Your task to perform on an android device: turn on translation in the chrome app Image 0: 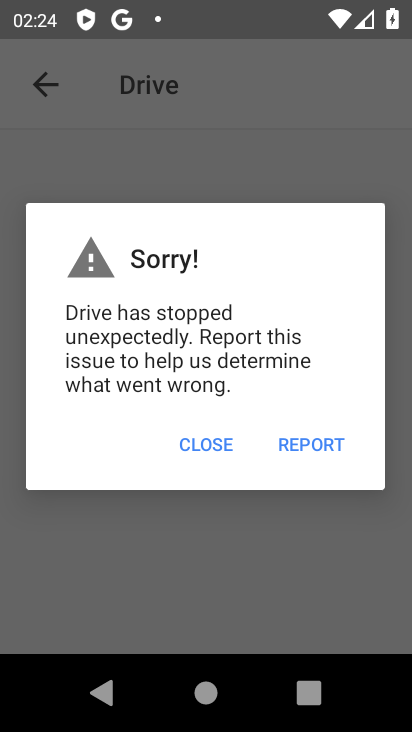
Step 0: press home button
Your task to perform on an android device: turn on translation in the chrome app Image 1: 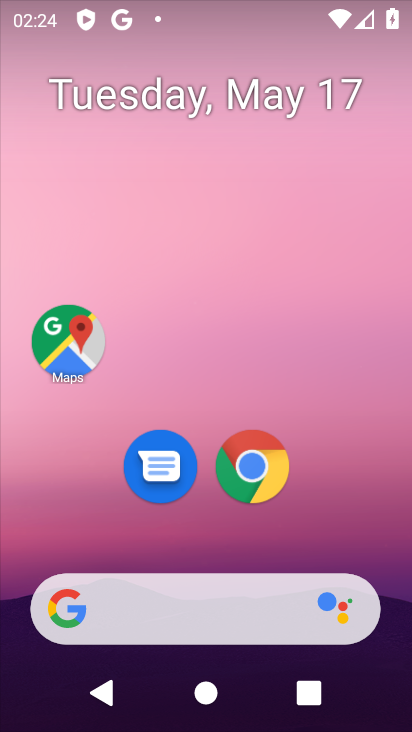
Step 1: click (258, 458)
Your task to perform on an android device: turn on translation in the chrome app Image 2: 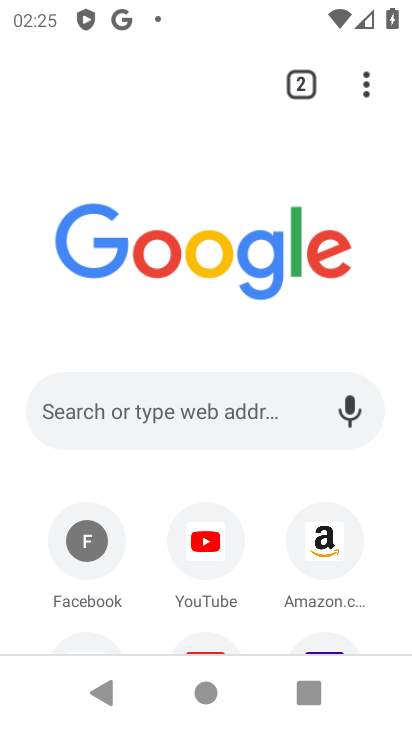
Step 2: drag from (370, 76) to (169, 519)
Your task to perform on an android device: turn on translation in the chrome app Image 3: 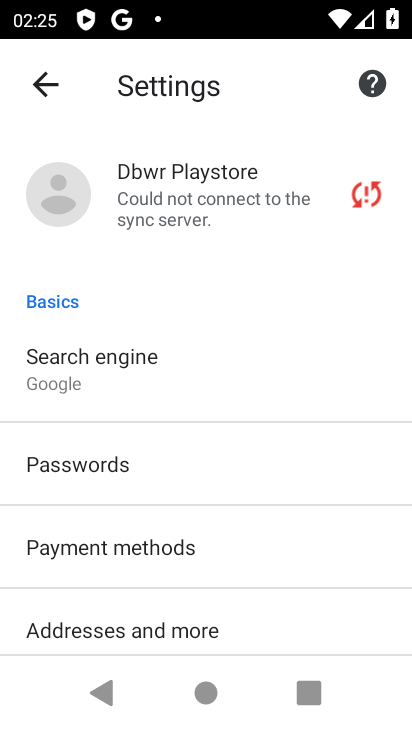
Step 3: drag from (126, 558) to (217, 185)
Your task to perform on an android device: turn on translation in the chrome app Image 4: 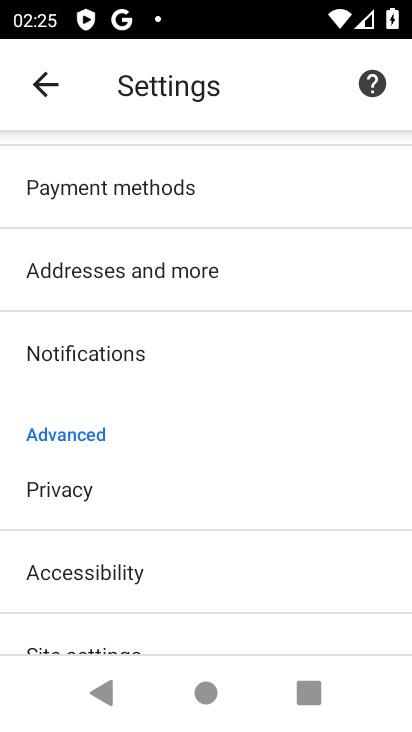
Step 4: drag from (110, 561) to (192, 221)
Your task to perform on an android device: turn on translation in the chrome app Image 5: 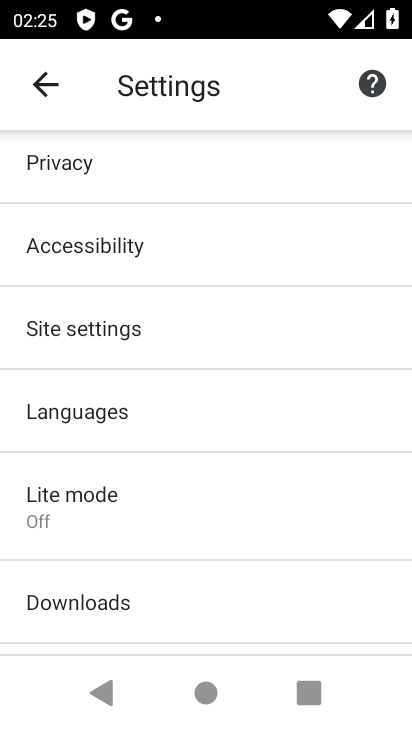
Step 5: click (113, 425)
Your task to perform on an android device: turn on translation in the chrome app Image 6: 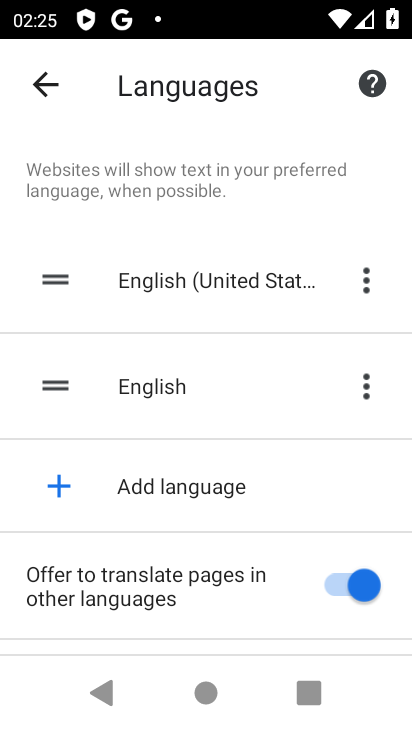
Step 6: click (346, 590)
Your task to perform on an android device: turn on translation in the chrome app Image 7: 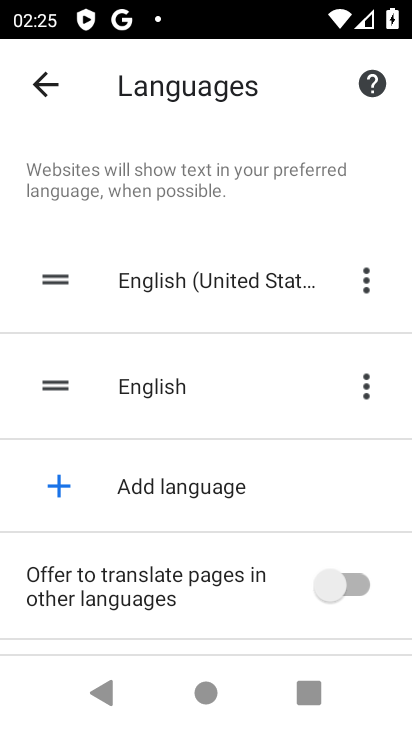
Step 7: click (358, 599)
Your task to perform on an android device: turn on translation in the chrome app Image 8: 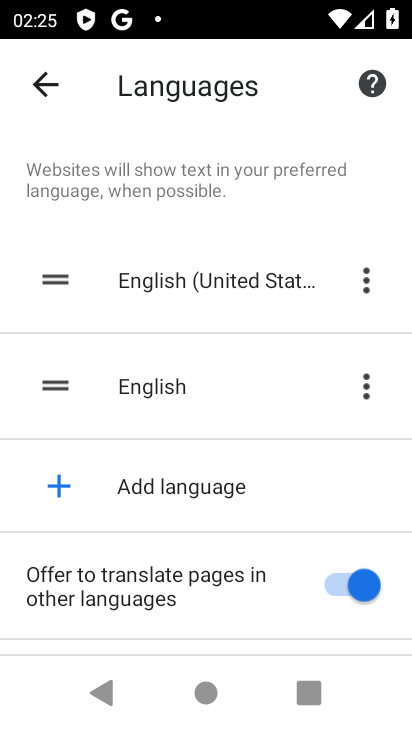
Step 8: task complete